Your task to perform on an android device: open app "Facebook Lite" Image 0: 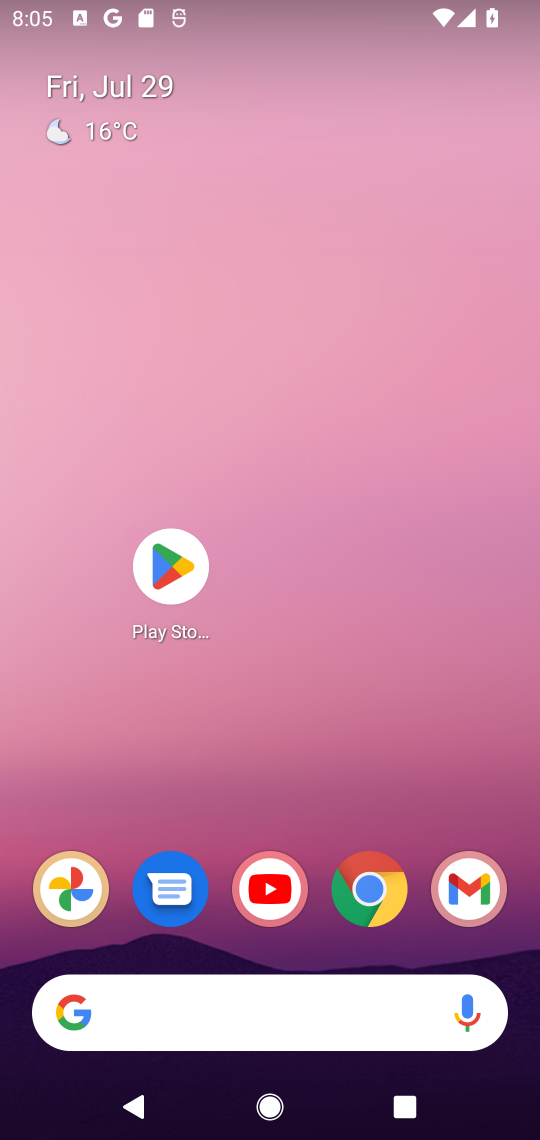
Step 0: press home button
Your task to perform on an android device: open app "Facebook Lite" Image 1: 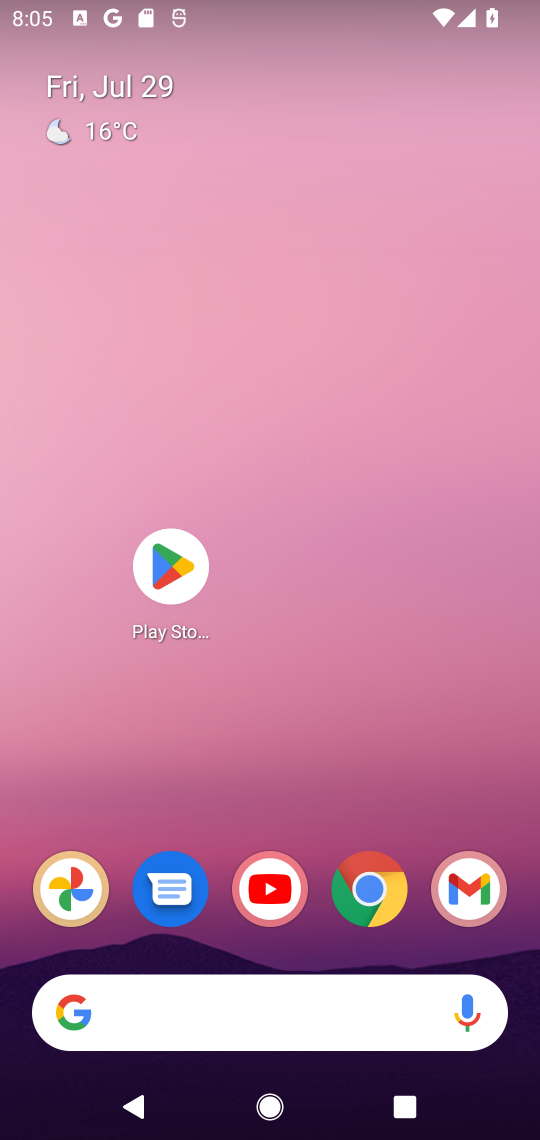
Step 1: click (179, 569)
Your task to perform on an android device: open app "Facebook Lite" Image 2: 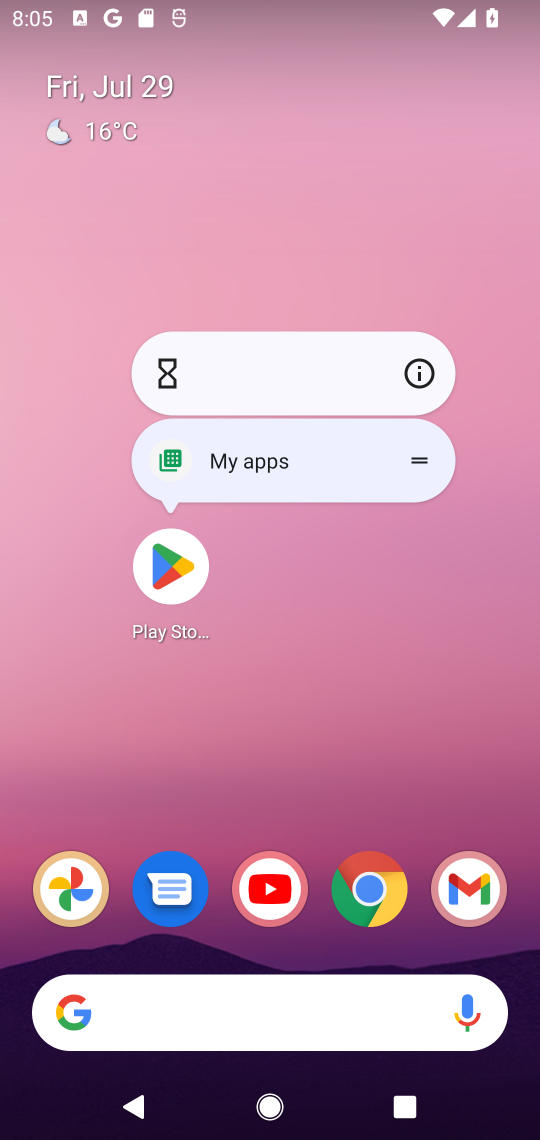
Step 2: click (173, 565)
Your task to perform on an android device: open app "Facebook Lite" Image 3: 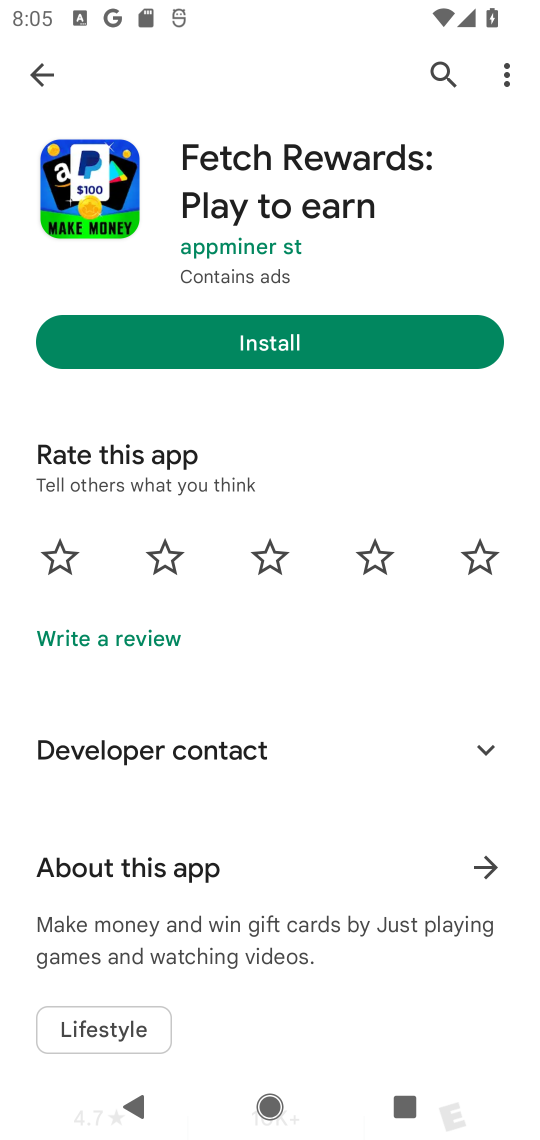
Step 3: click (437, 71)
Your task to perform on an android device: open app "Facebook Lite" Image 4: 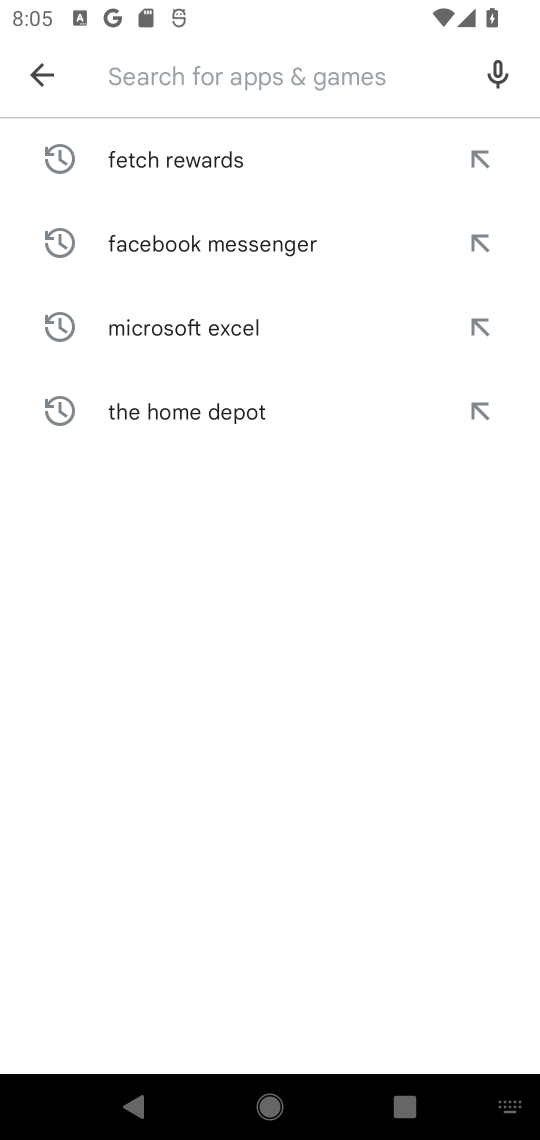
Step 4: type "Facebook Lite"
Your task to perform on an android device: open app "Facebook Lite" Image 5: 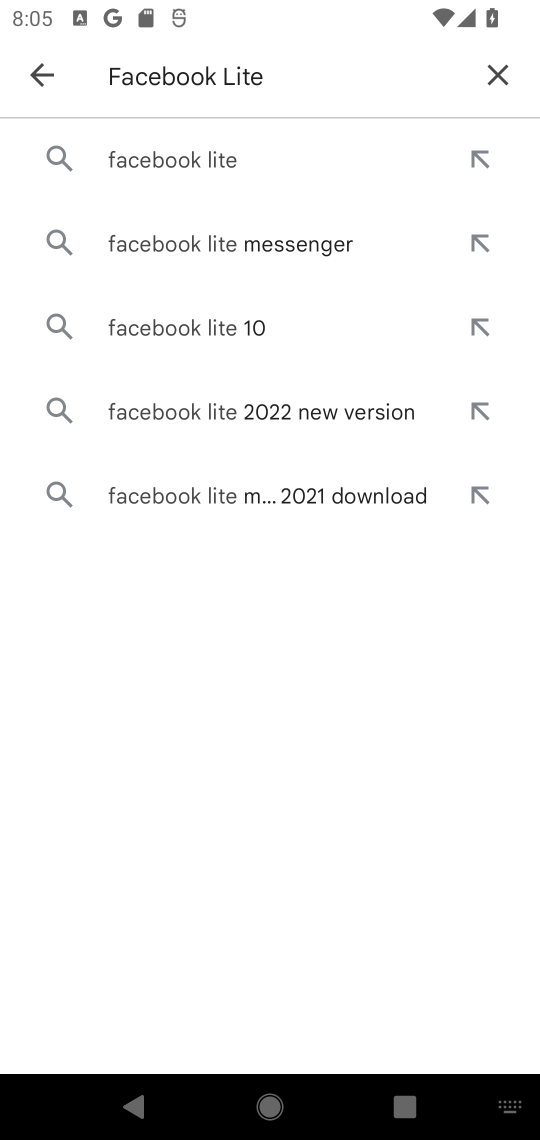
Step 5: click (216, 158)
Your task to perform on an android device: open app "Facebook Lite" Image 6: 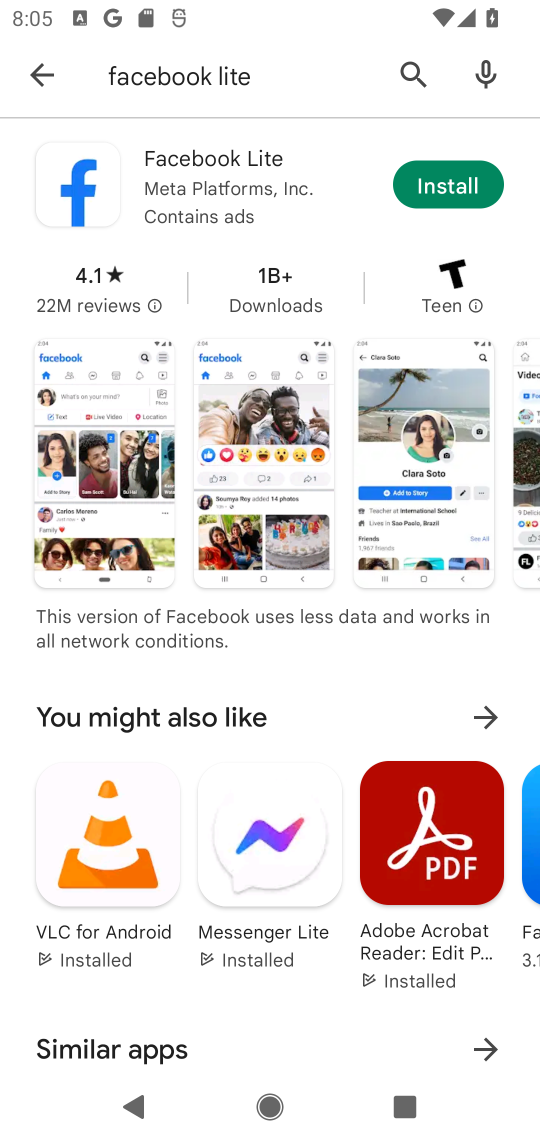
Step 6: task complete